Your task to perform on an android device: Show me recent news Image 0: 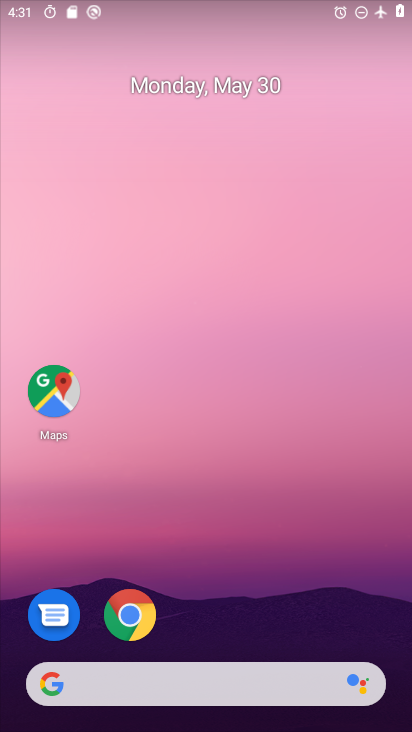
Step 0: drag from (261, 609) to (276, 239)
Your task to perform on an android device: Show me recent news Image 1: 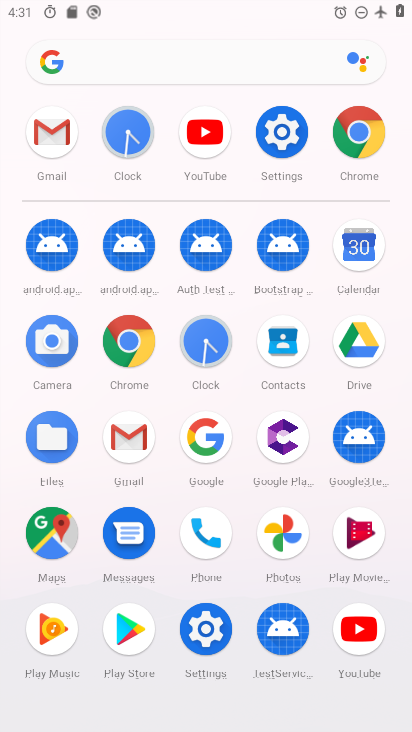
Step 1: click (203, 438)
Your task to perform on an android device: Show me recent news Image 2: 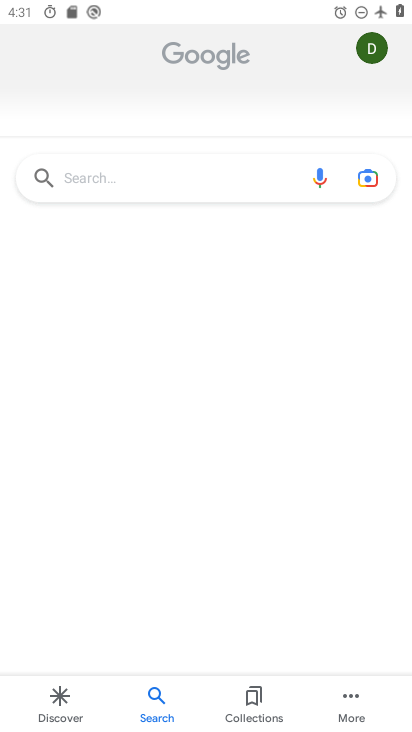
Step 2: click (202, 186)
Your task to perform on an android device: Show me recent news Image 3: 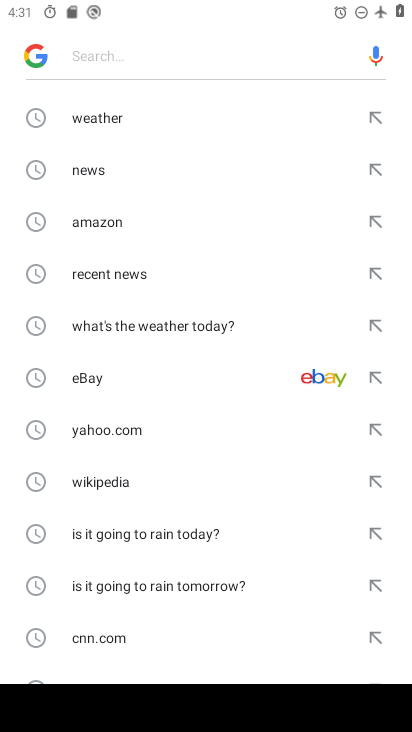
Step 3: type "recent news"
Your task to perform on an android device: Show me recent news Image 4: 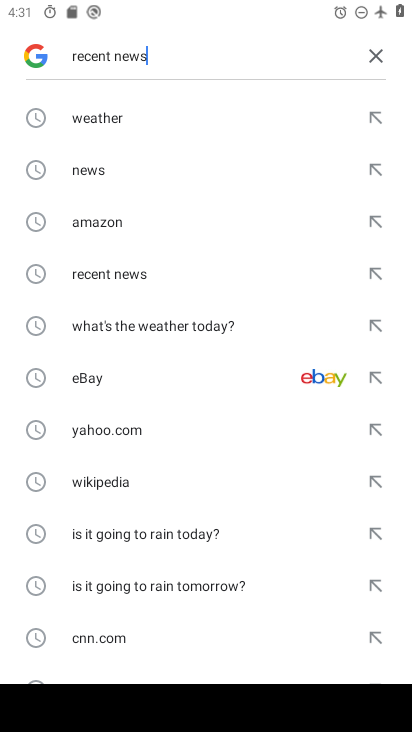
Step 4: type ""
Your task to perform on an android device: Show me recent news Image 5: 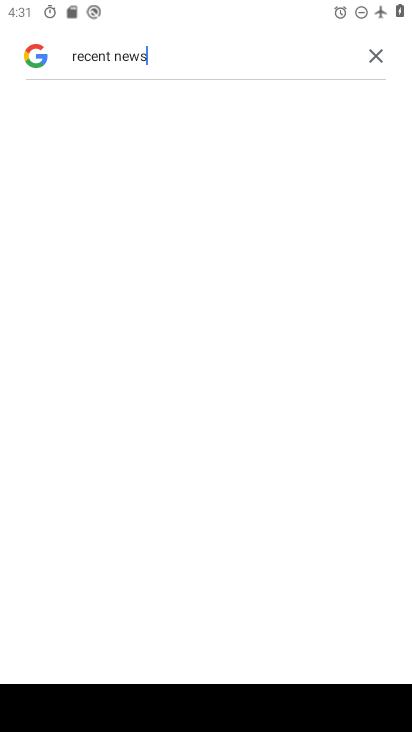
Step 5: type ""
Your task to perform on an android device: Show me recent news Image 6: 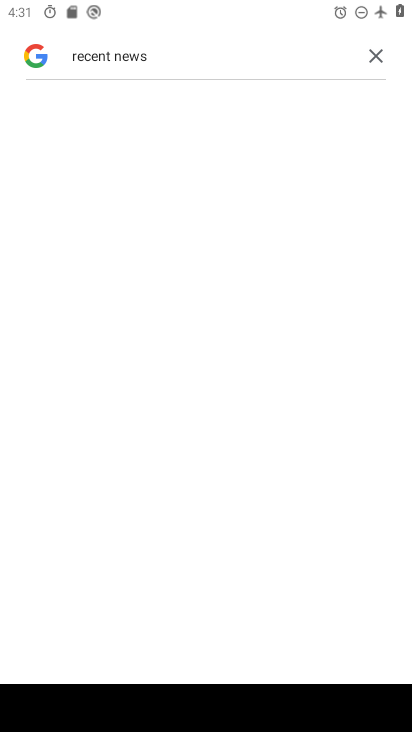
Step 6: press back button
Your task to perform on an android device: Show me recent news Image 7: 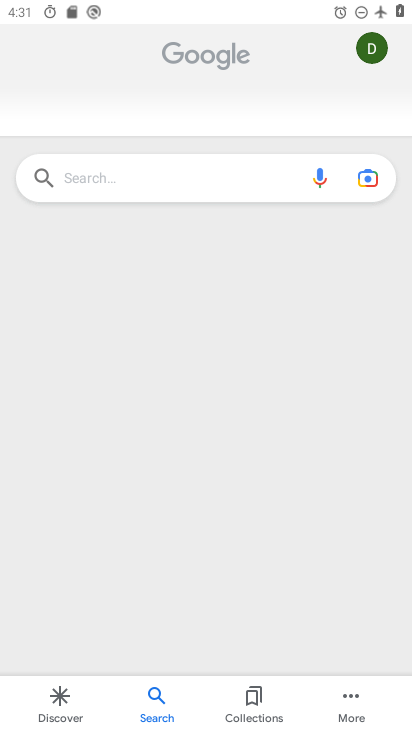
Step 7: press back button
Your task to perform on an android device: Show me recent news Image 8: 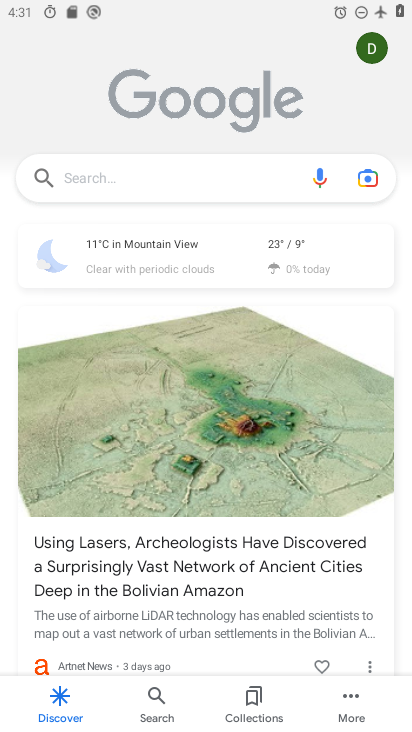
Step 8: press back button
Your task to perform on an android device: Show me recent news Image 9: 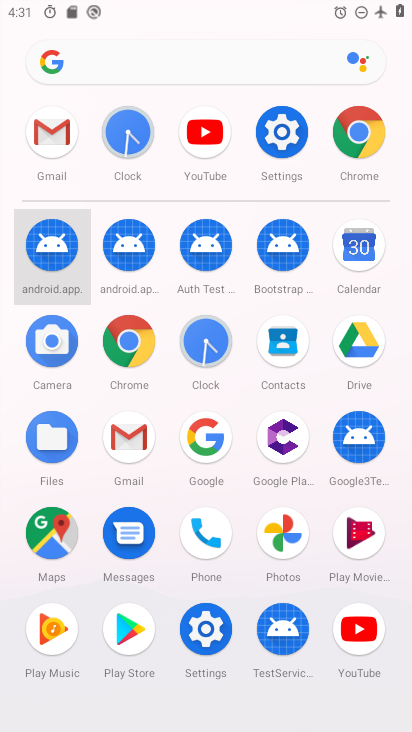
Step 9: click (283, 130)
Your task to perform on an android device: Show me recent news Image 10: 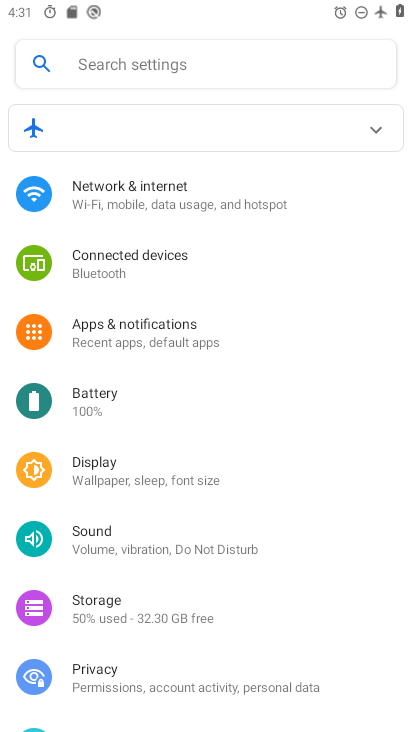
Step 10: click (203, 200)
Your task to perform on an android device: Show me recent news Image 11: 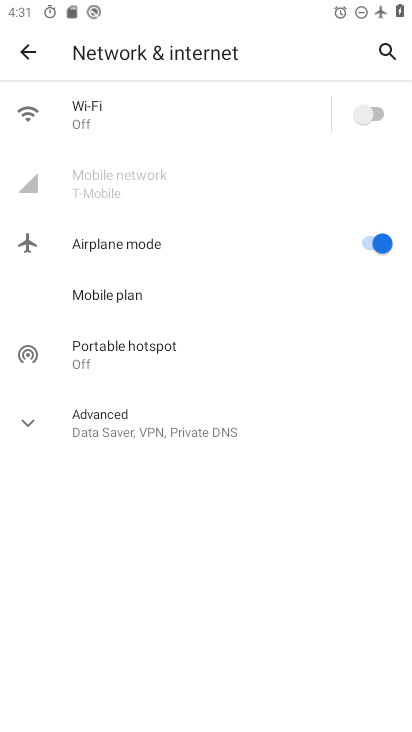
Step 11: click (379, 246)
Your task to perform on an android device: Show me recent news Image 12: 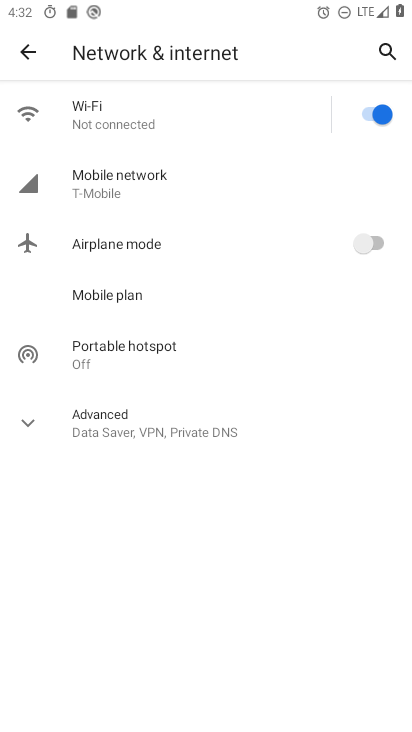
Step 12: press back button
Your task to perform on an android device: Show me recent news Image 13: 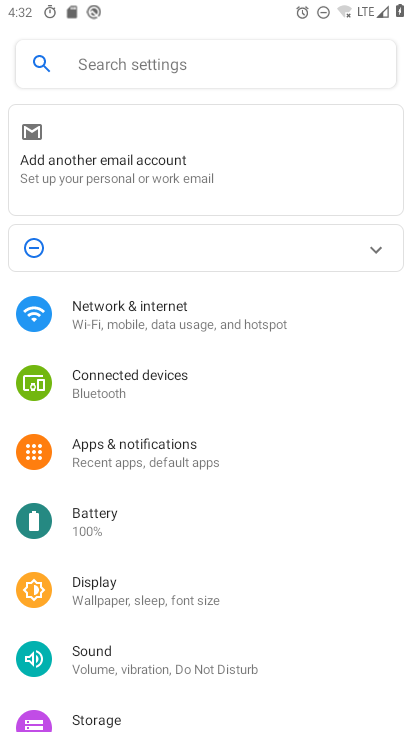
Step 13: press back button
Your task to perform on an android device: Show me recent news Image 14: 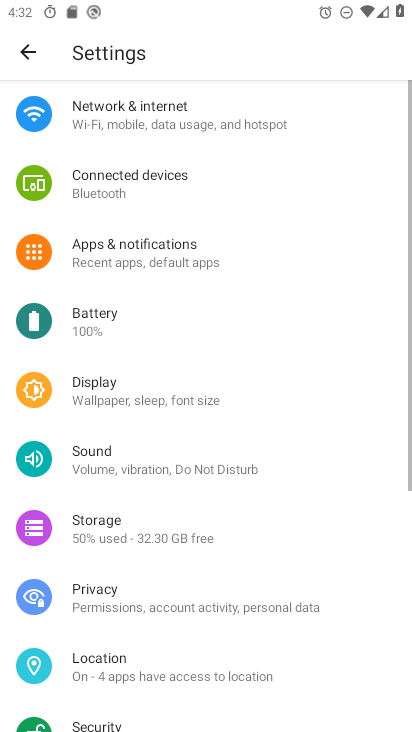
Step 14: press back button
Your task to perform on an android device: Show me recent news Image 15: 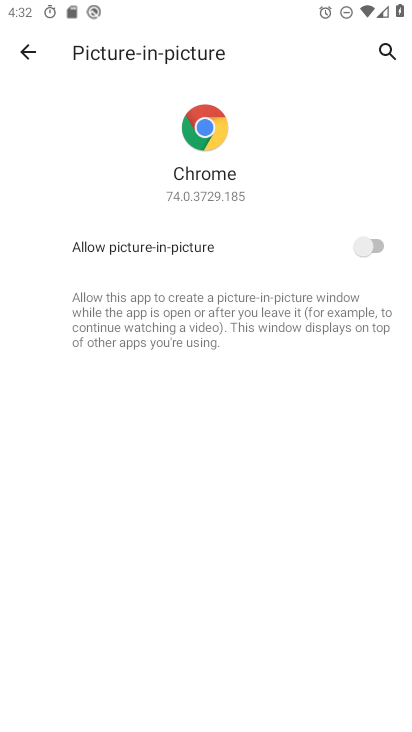
Step 15: press back button
Your task to perform on an android device: Show me recent news Image 16: 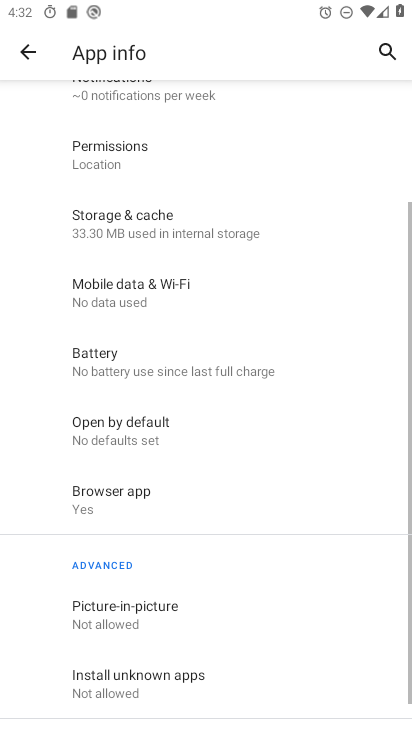
Step 16: press back button
Your task to perform on an android device: Show me recent news Image 17: 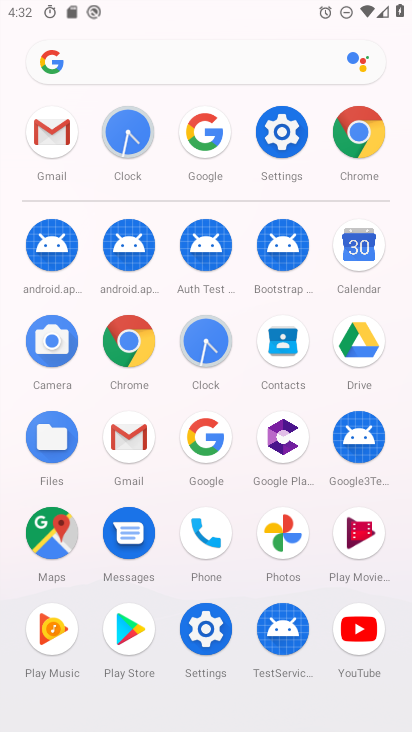
Step 17: click (203, 137)
Your task to perform on an android device: Show me recent news Image 18: 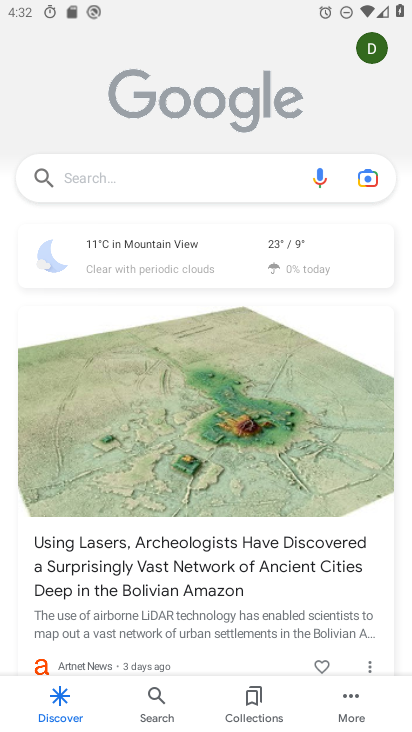
Step 18: click (165, 173)
Your task to perform on an android device: Show me recent news Image 19: 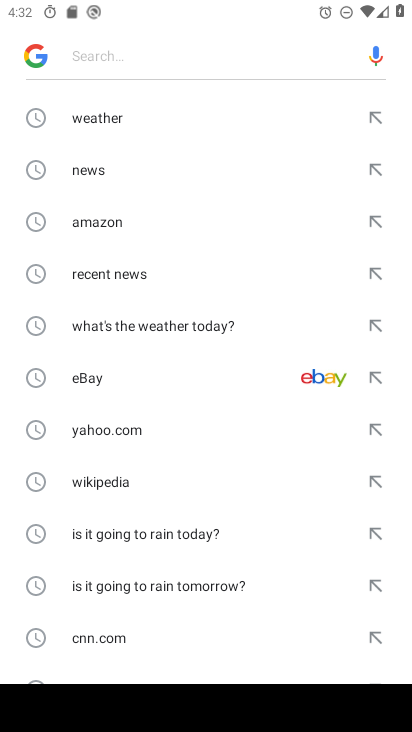
Step 19: type "recent news"
Your task to perform on an android device: Show me recent news Image 20: 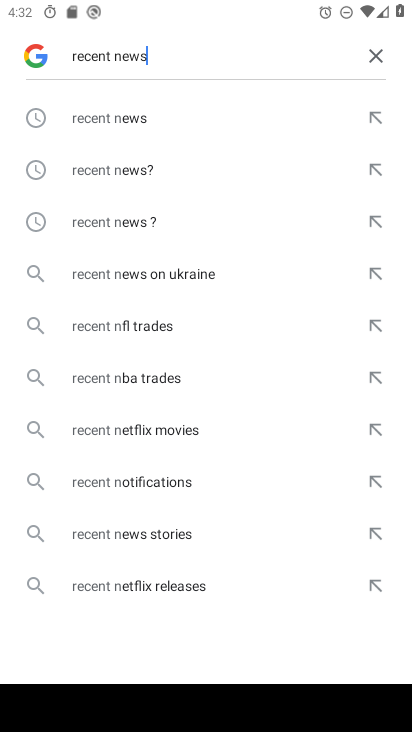
Step 20: type ""
Your task to perform on an android device: Show me recent news Image 21: 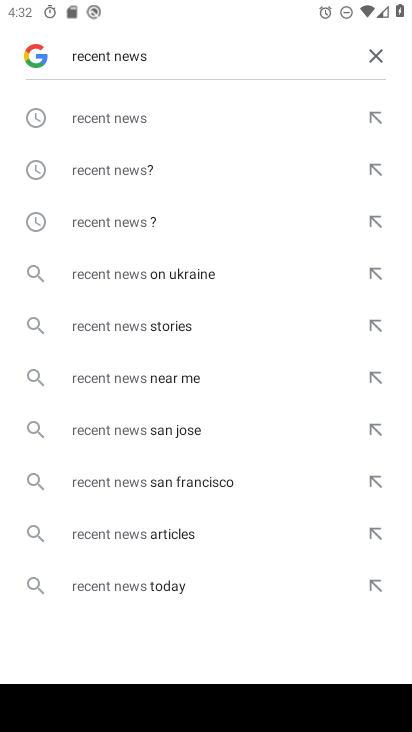
Step 21: click (126, 117)
Your task to perform on an android device: Show me recent news Image 22: 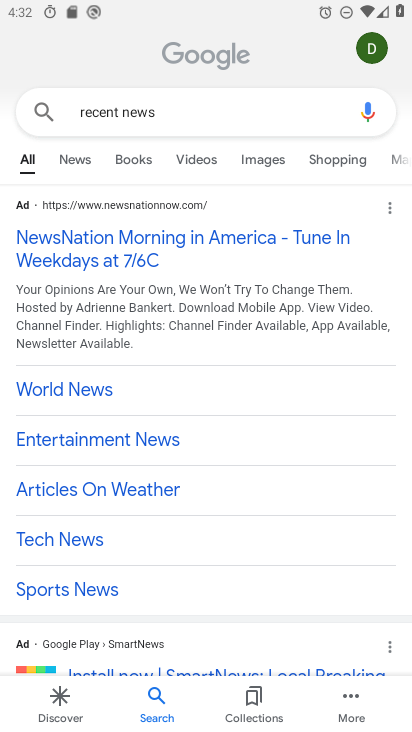
Step 22: drag from (265, 526) to (322, 345)
Your task to perform on an android device: Show me recent news Image 23: 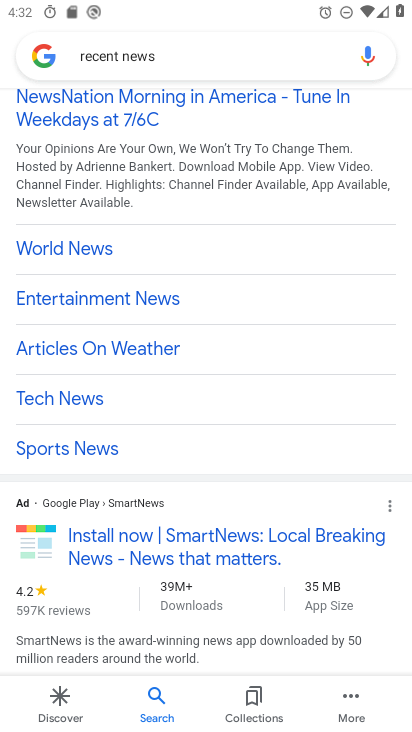
Step 23: drag from (212, 581) to (344, 358)
Your task to perform on an android device: Show me recent news Image 24: 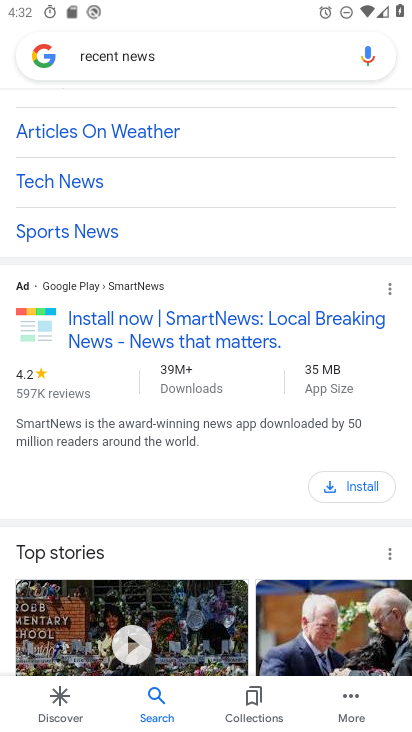
Step 24: drag from (241, 570) to (358, 327)
Your task to perform on an android device: Show me recent news Image 25: 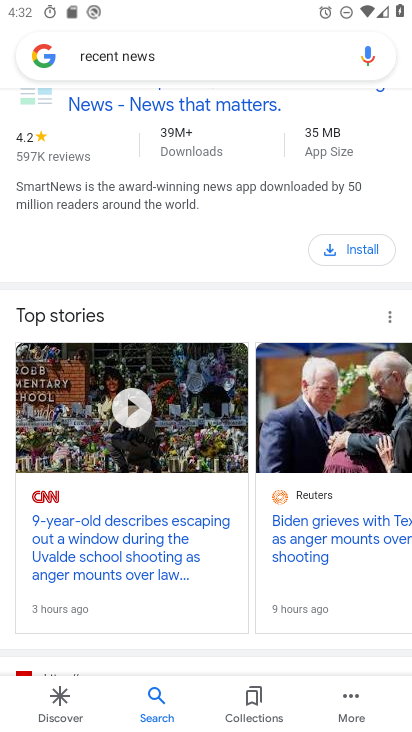
Step 25: click (210, 443)
Your task to perform on an android device: Show me recent news Image 26: 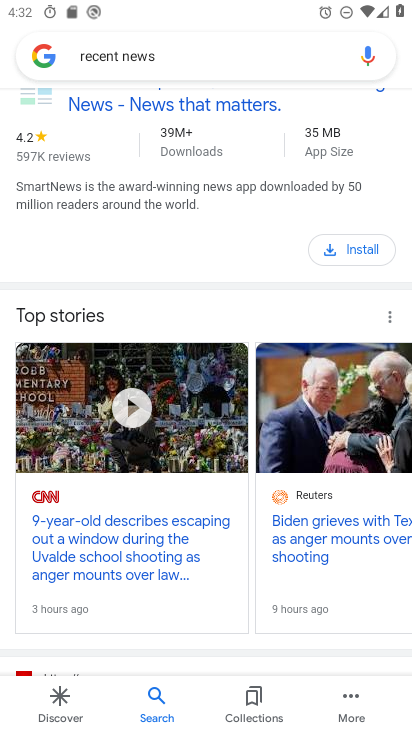
Step 26: click (165, 543)
Your task to perform on an android device: Show me recent news Image 27: 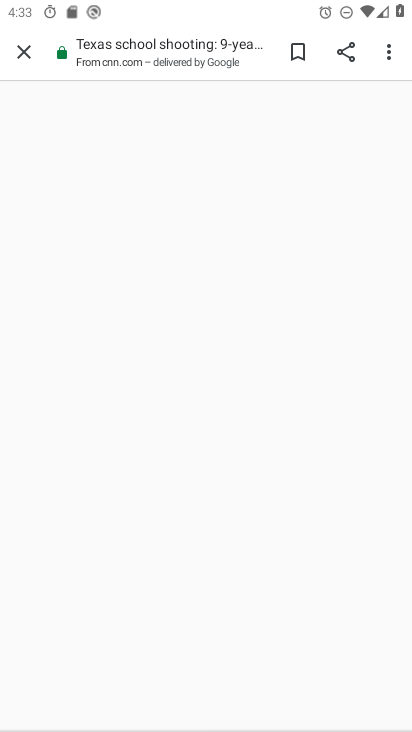
Step 27: task complete